Your task to perform on an android device: What is the recent news? Image 0: 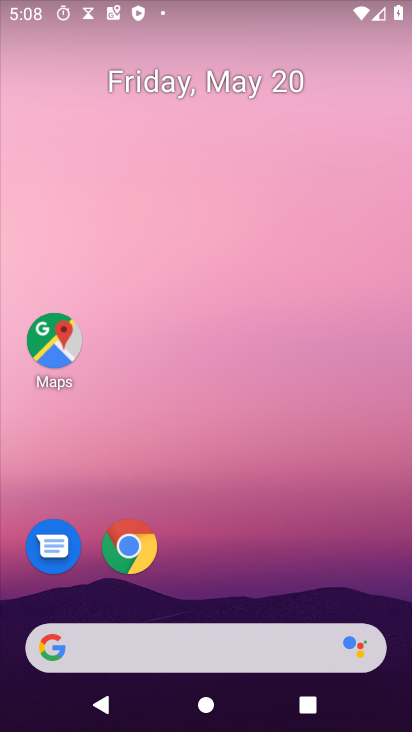
Step 0: drag from (268, 589) to (170, 134)
Your task to perform on an android device: What is the recent news? Image 1: 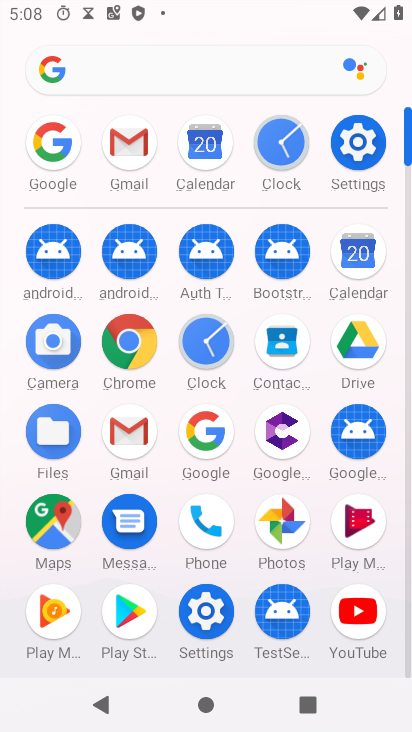
Step 1: click (51, 143)
Your task to perform on an android device: What is the recent news? Image 2: 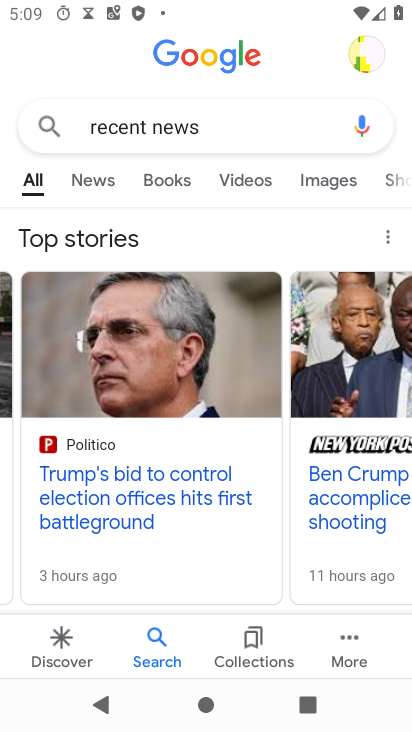
Step 2: click (127, 481)
Your task to perform on an android device: What is the recent news? Image 3: 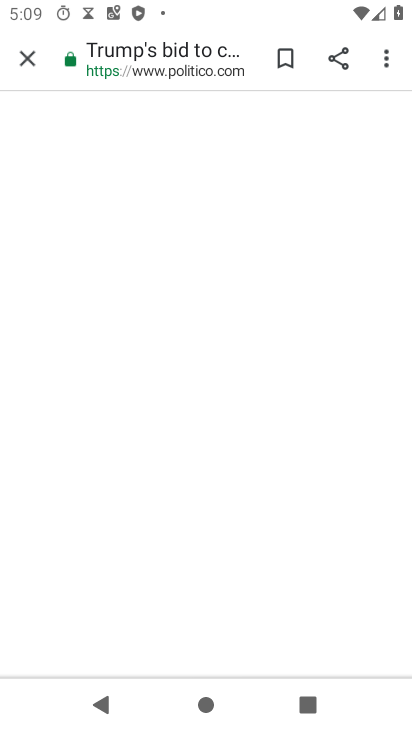
Step 3: task complete